Your task to perform on an android device: Go to sound settings Image 0: 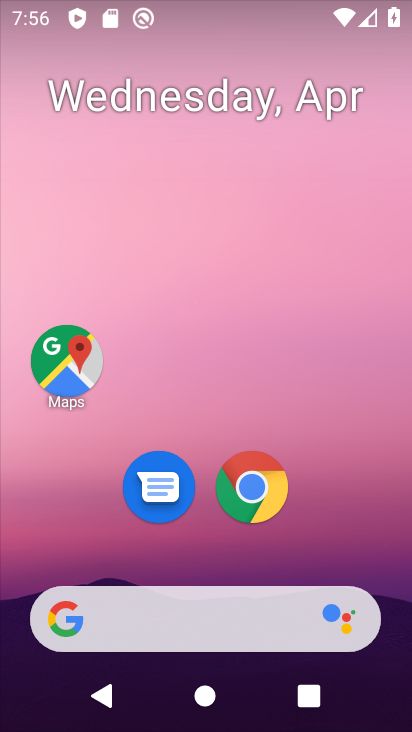
Step 0: drag from (364, 519) to (400, 171)
Your task to perform on an android device: Go to sound settings Image 1: 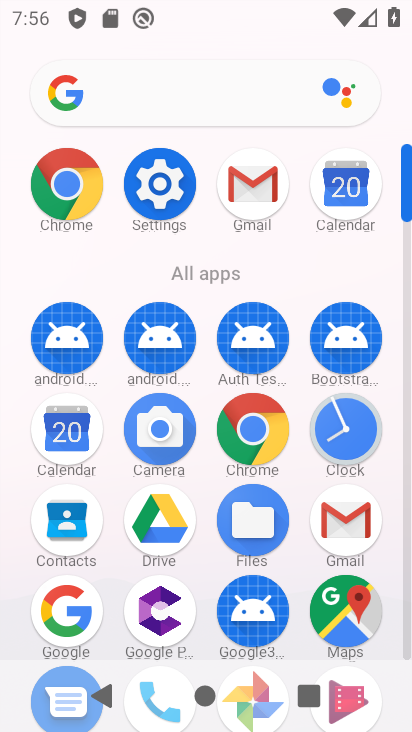
Step 1: click (173, 193)
Your task to perform on an android device: Go to sound settings Image 2: 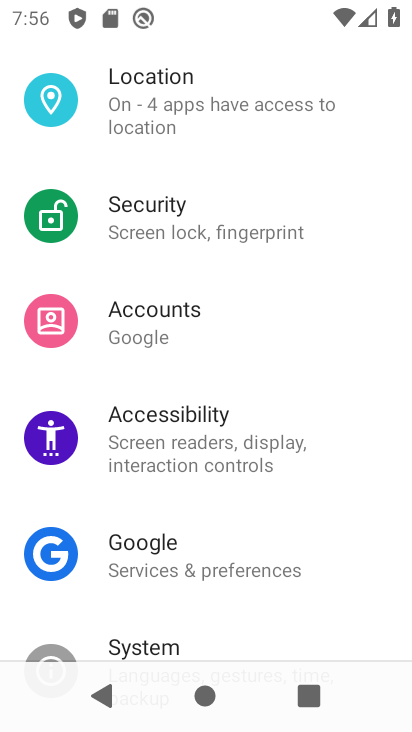
Step 2: drag from (284, 538) to (279, 184)
Your task to perform on an android device: Go to sound settings Image 3: 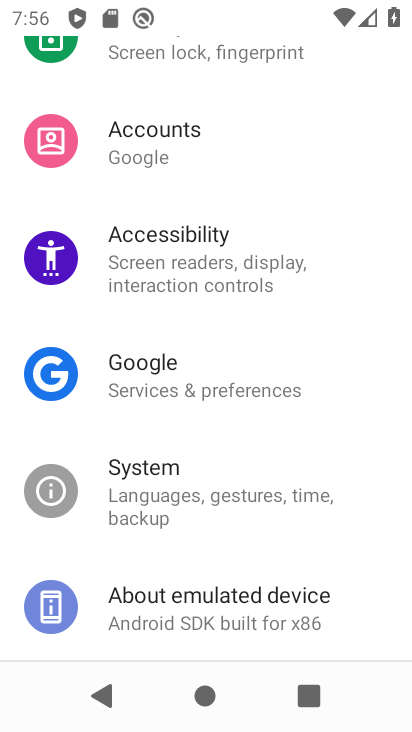
Step 3: drag from (321, 187) to (290, 521)
Your task to perform on an android device: Go to sound settings Image 4: 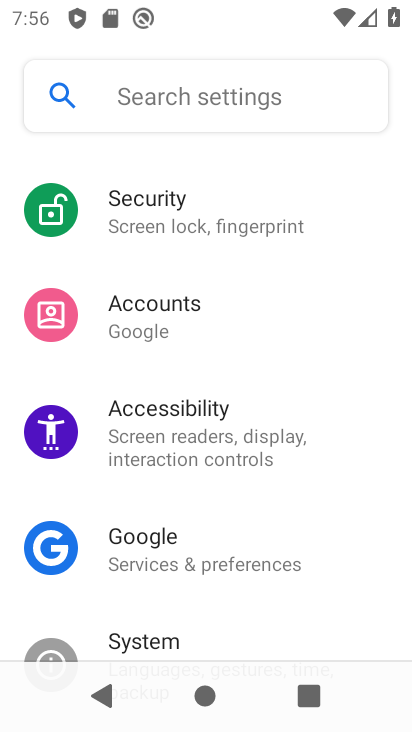
Step 4: drag from (313, 274) to (313, 579)
Your task to perform on an android device: Go to sound settings Image 5: 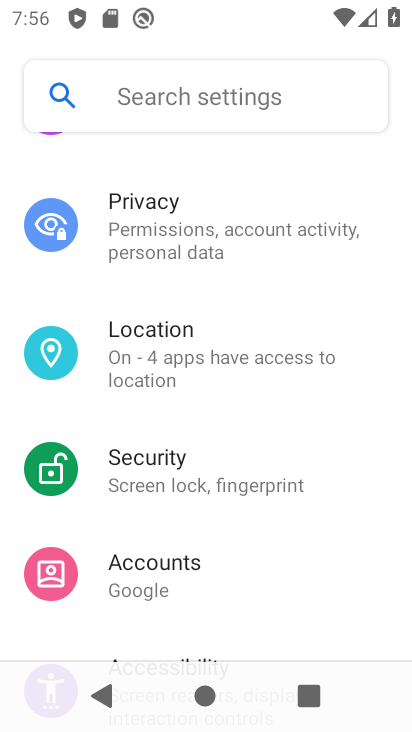
Step 5: drag from (309, 317) to (297, 617)
Your task to perform on an android device: Go to sound settings Image 6: 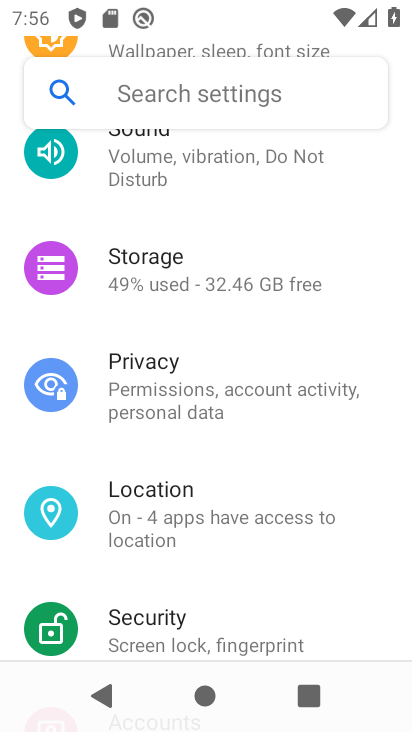
Step 6: drag from (309, 288) to (288, 590)
Your task to perform on an android device: Go to sound settings Image 7: 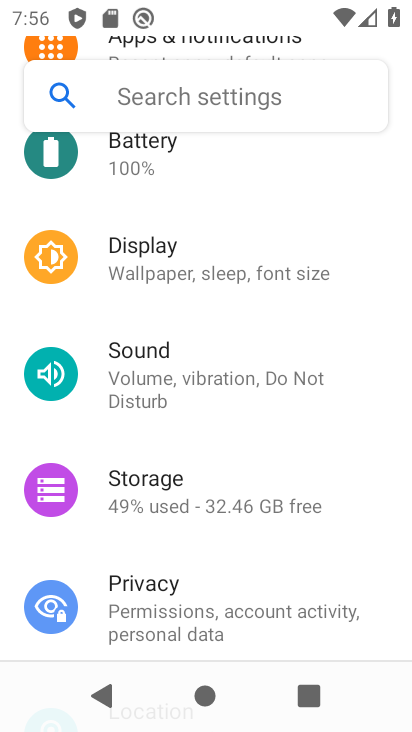
Step 7: click (216, 367)
Your task to perform on an android device: Go to sound settings Image 8: 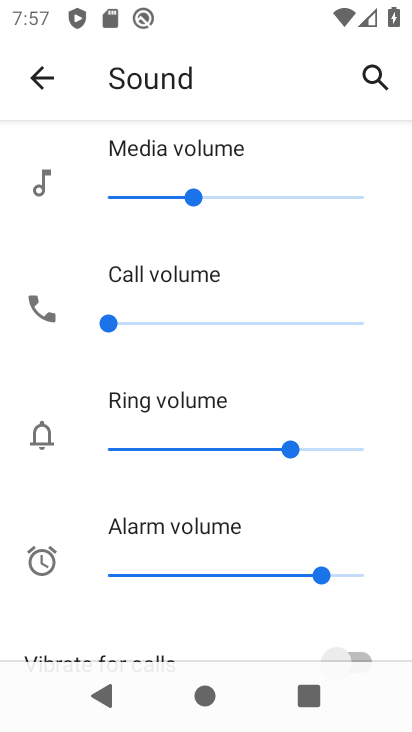
Step 8: task complete